Your task to perform on an android device: Open wifi settings Image 0: 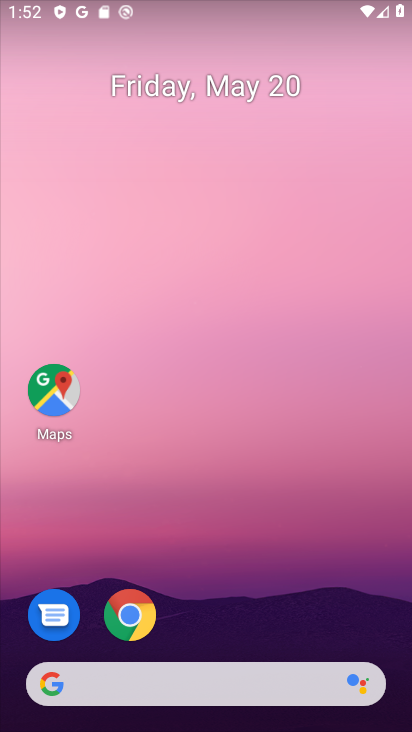
Step 0: drag from (212, 630) to (206, 36)
Your task to perform on an android device: Open wifi settings Image 1: 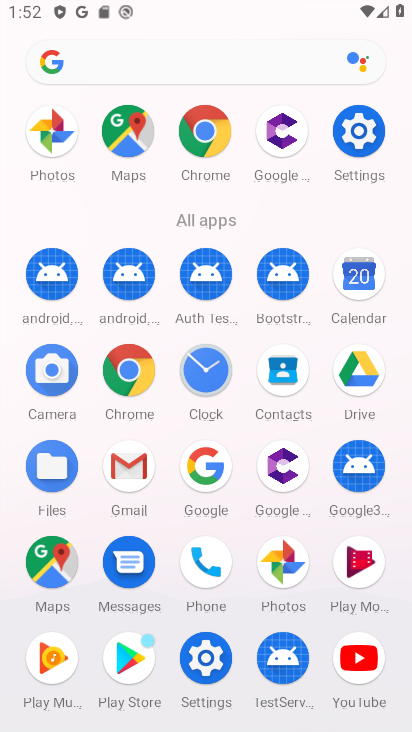
Step 1: click (372, 127)
Your task to perform on an android device: Open wifi settings Image 2: 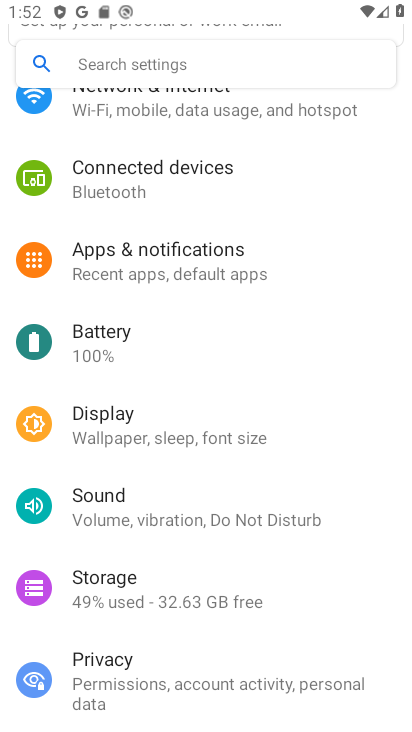
Step 2: drag from (287, 127) to (275, 605)
Your task to perform on an android device: Open wifi settings Image 3: 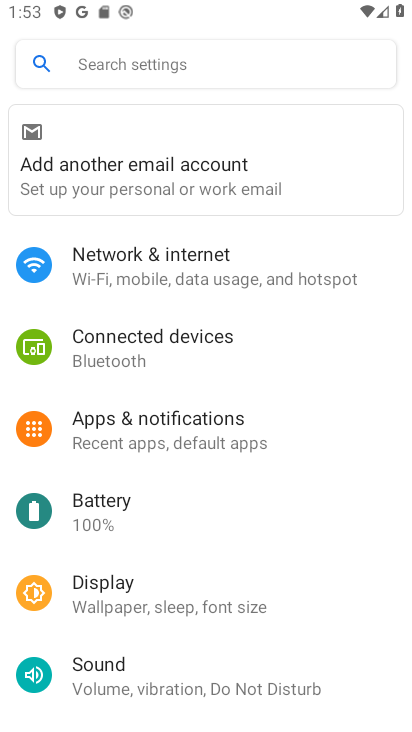
Step 3: click (251, 261)
Your task to perform on an android device: Open wifi settings Image 4: 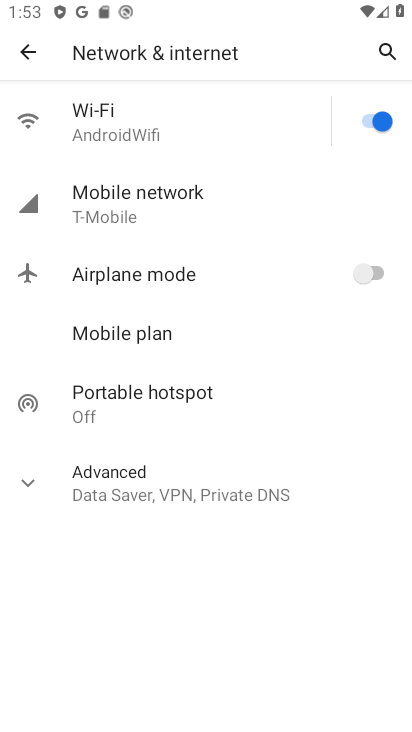
Step 4: click (195, 136)
Your task to perform on an android device: Open wifi settings Image 5: 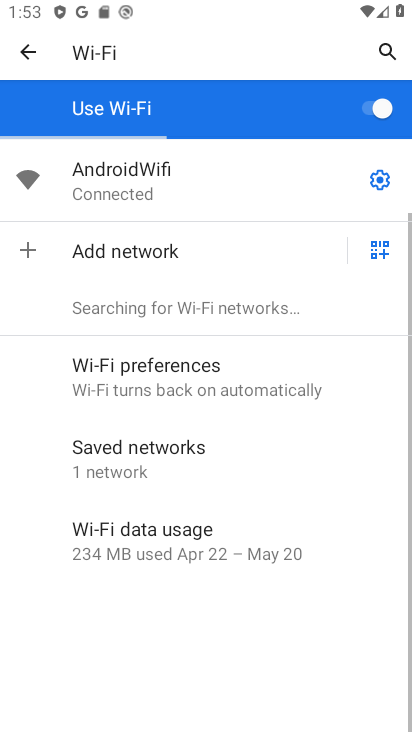
Step 5: task complete